Your task to perform on an android device: Search for seafood restaurants on Google Maps Image 0: 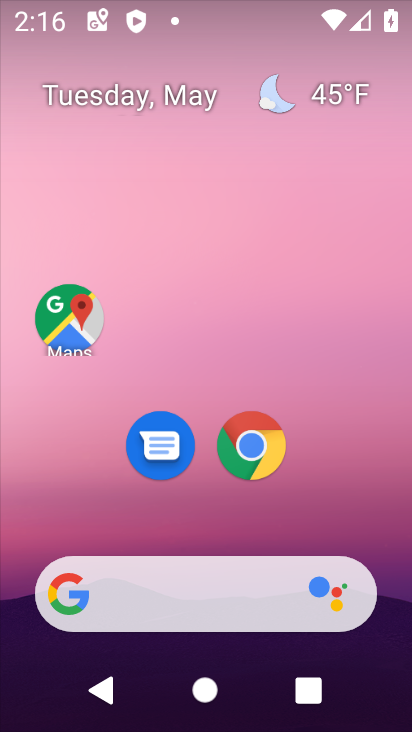
Step 0: click (60, 319)
Your task to perform on an android device: Search for seafood restaurants on Google Maps Image 1: 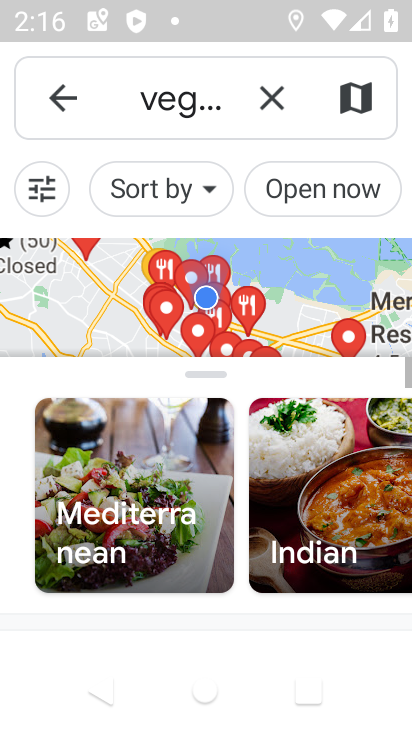
Step 1: click (280, 96)
Your task to perform on an android device: Search for seafood restaurants on Google Maps Image 2: 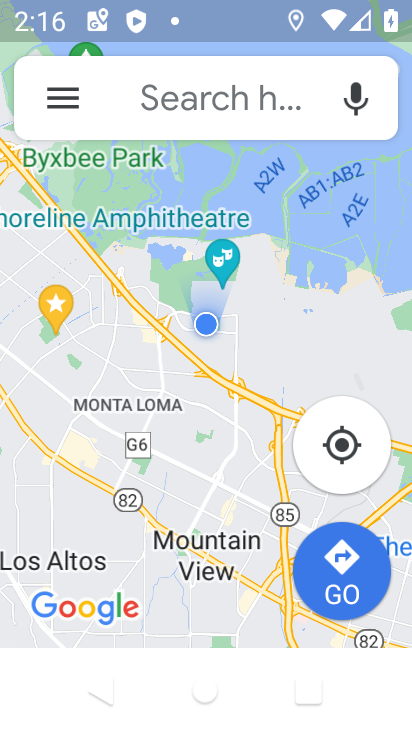
Step 2: click (261, 91)
Your task to perform on an android device: Search for seafood restaurants on Google Maps Image 3: 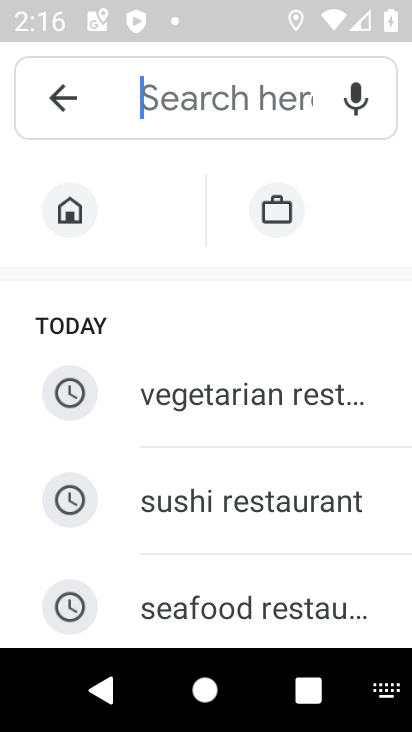
Step 3: click (178, 626)
Your task to perform on an android device: Search for seafood restaurants on Google Maps Image 4: 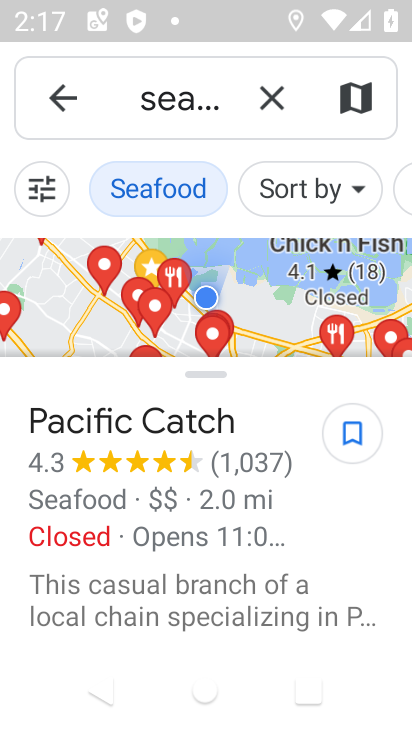
Step 4: task complete